Your task to perform on an android device: turn vacation reply on in the gmail app Image 0: 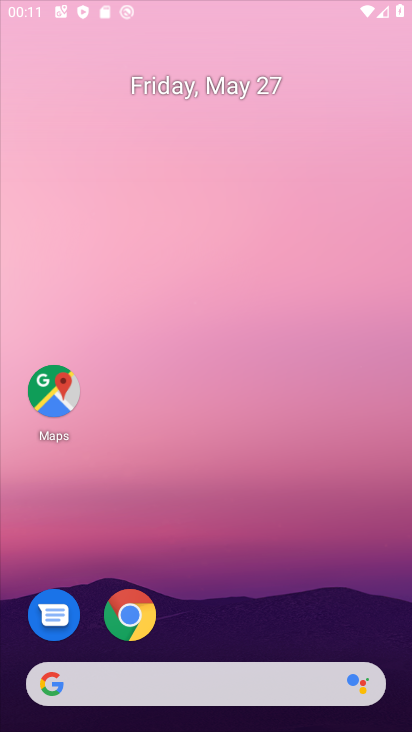
Step 0: press home button
Your task to perform on an android device: turn vacation reply on in the gmail app Image 1: 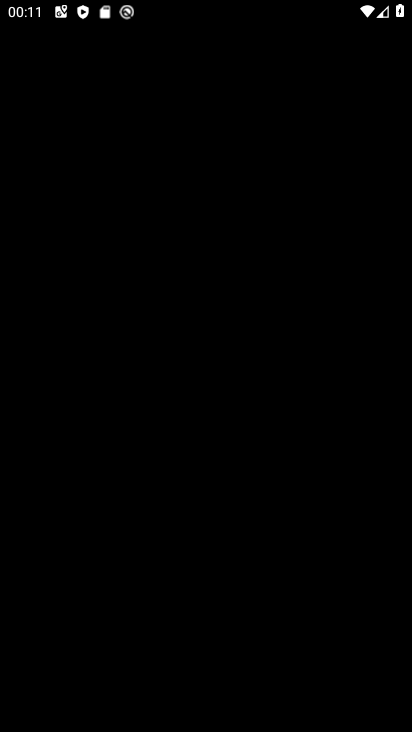
Step 1: click (351, 5)
Your task to perform on an android device: turn vacation reply on in the gmail app Image 2: 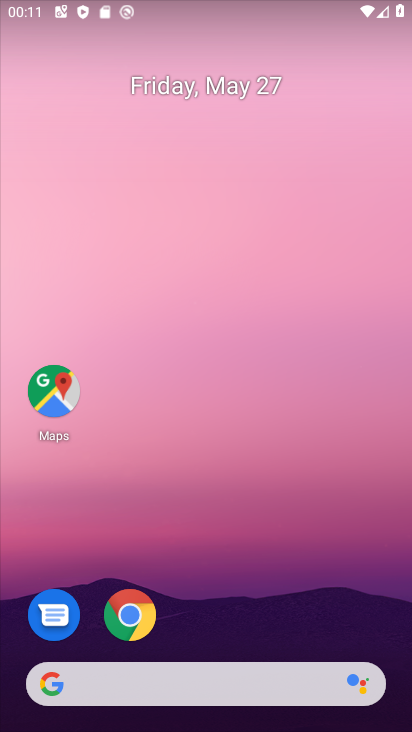
Step 2: drag from (352, 629) to (360, 127)
Your task to perform on an android device: turn vacation reply on in the gmail app Image 3: 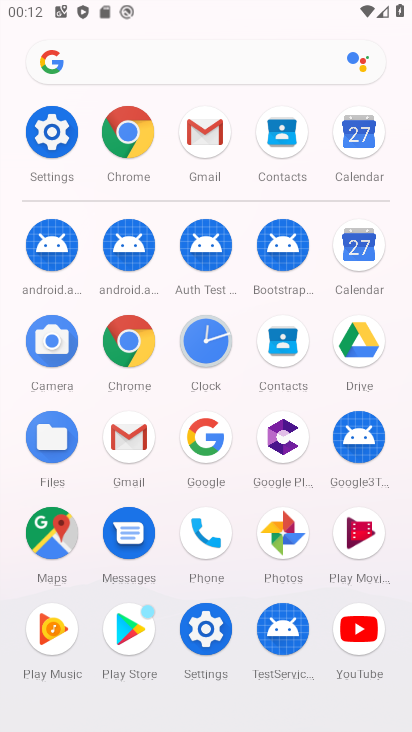
Step 3: click (139, 446)
Your task to perform on an android device: turn vacation reply on in the gmail app Image 4: 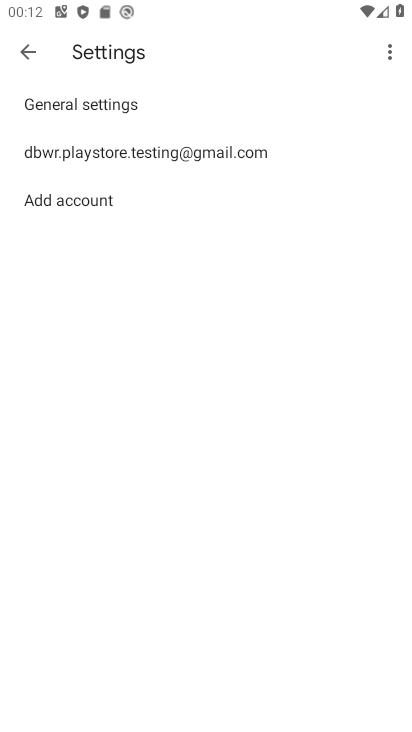
Step 4: click (196, 150)
Your task to perform on an android device: turn vacation reply on in the gmail app Image 5: 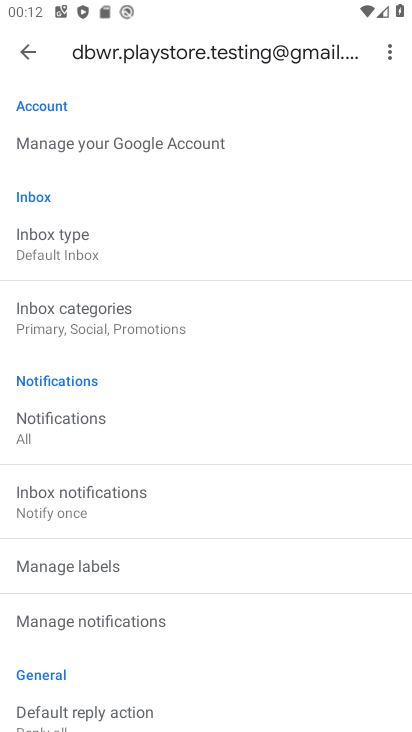
Step 5: drag from (294, 458) to (323, 373)
Your task to perform on an android device: turn vacation reply on in the gmail app Image 6: 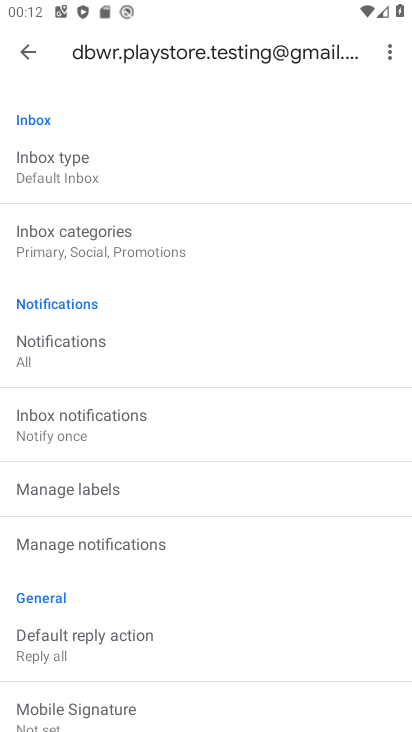
Step 6: drag from (305, 465) to (317, 384)
Your task to perform on an android device: turn vacation reply on in the gmail app Image 7: 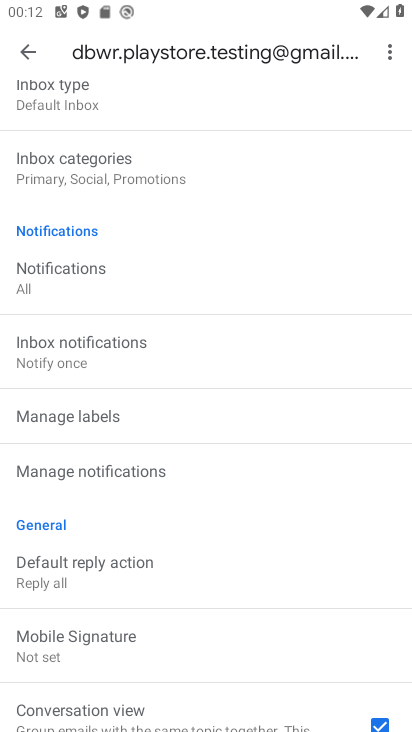
Step 7: drag from (306, 476) to (315, 356)
Your task to perform on an android device: turn vacation reply on in the gmail app Image 8: 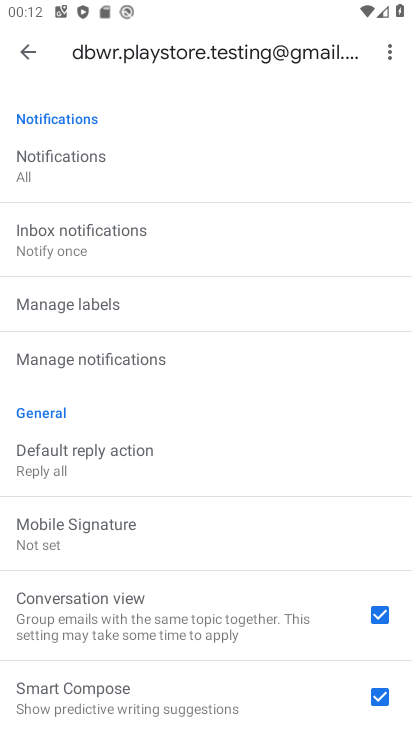
Step 8: drag from (311, 459) to (310, 350)
Your task to perform on an android device: turn vacation reply on in the gmail app Image 9: 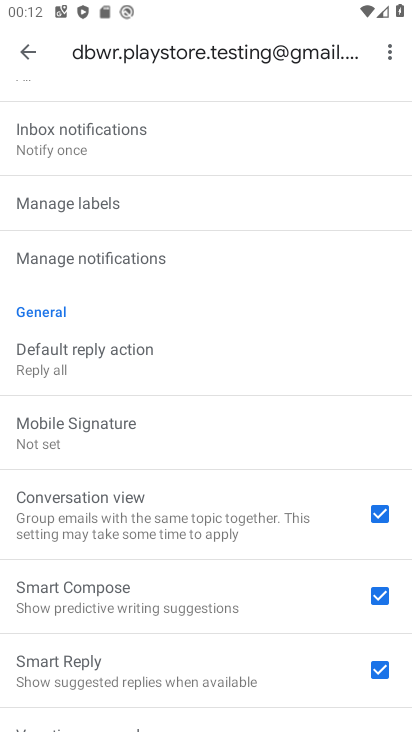
Step 9: drag from (276, 478) to (291, 394)
Your task to perform on an android device: turn vacation reply on in the gmail app Image 10: 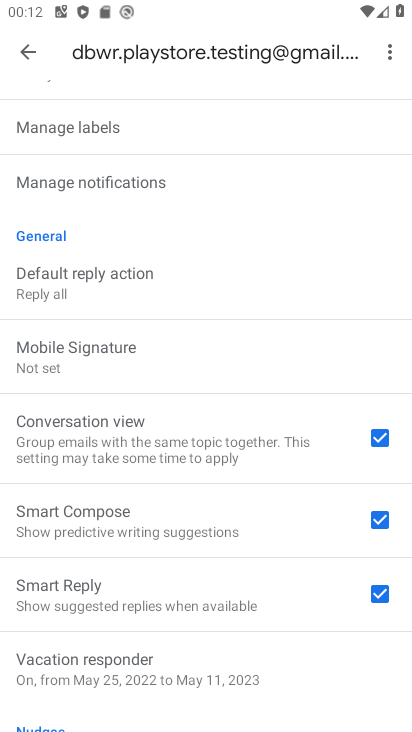
Step 10: drag from (290, 502) to (303, 383)
Your task to perform on an android device: turn vacation reply on in the gmail app Image 11: 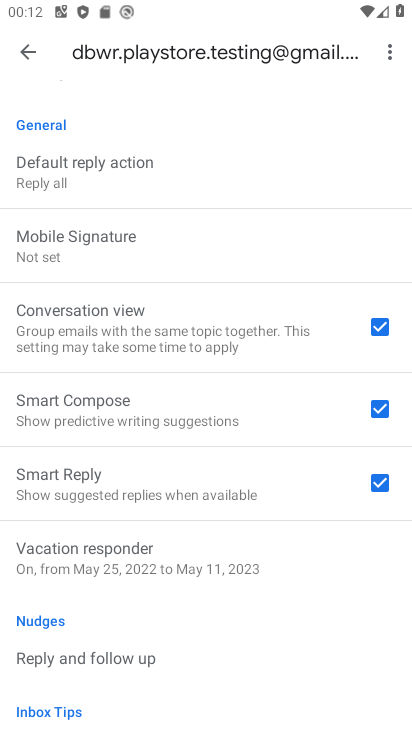
Step 11: drag from (311, 521) to (315, 381)
Your task to perform on an android device: turn vacation reply on in the gmail app Image 12: 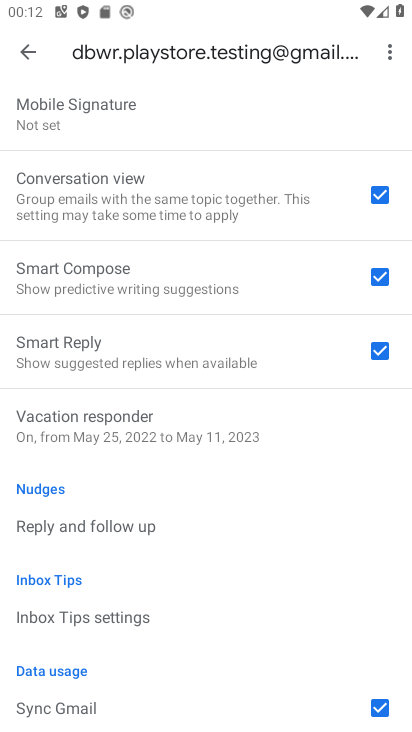
Step 12: drag from (303, 519) to (312, 388)
Your task to perform on an android device: turn vacation reply on in the gmail app Image 13: 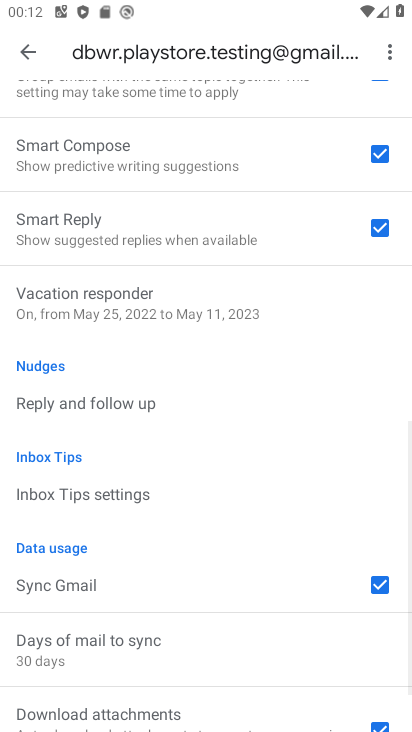
Step 13: drag from (289, 525) to (288, 424)
Your task to perform on an android device: turn vacation reply on in the gmail app Image 14: 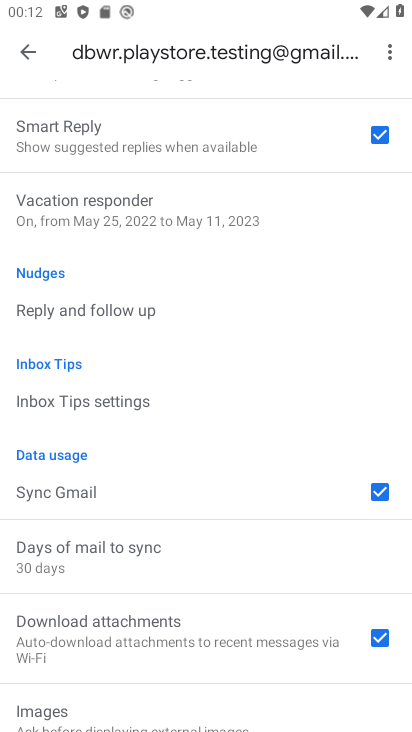
Step 14: click (235, 227)
Your task to perform on an android device: turn vacation reply on in the gmail app Image 15: 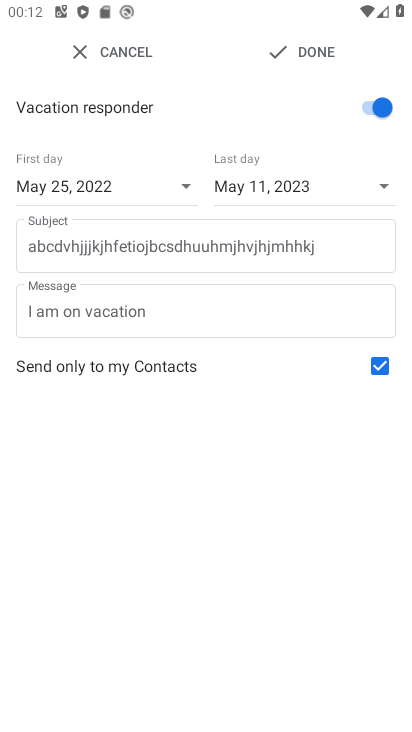
Step 15: task complete